Your task to perform on an android device: turn off picture-in-picture Image 0: 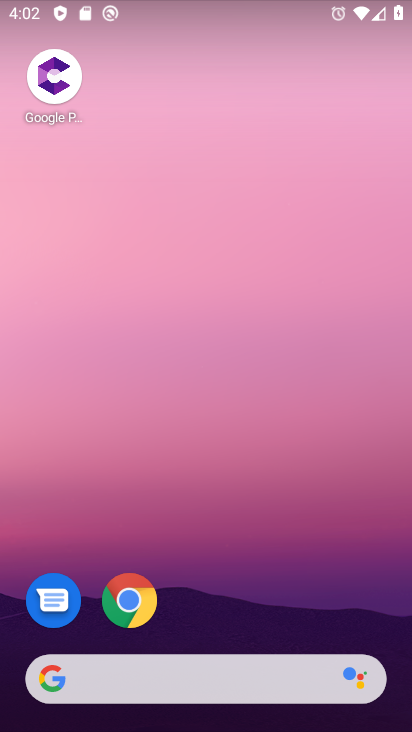
Step 0: click (140, 615)
Your task to perform on an android device: turn off picture-in-picture Image 1: 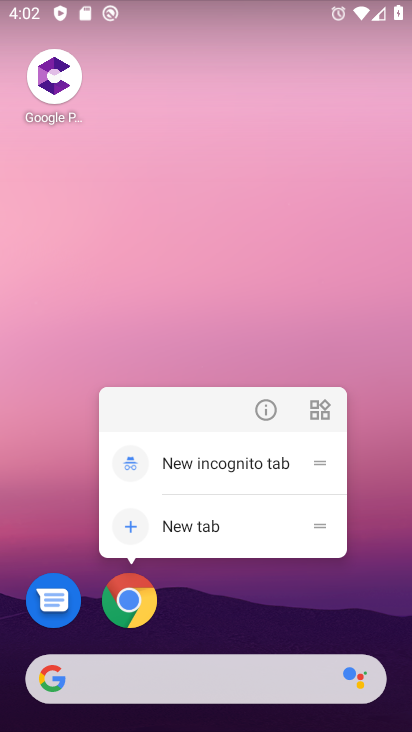
Step 1: click (267, 416)
Your task to perform on an android device: turn off picture-in-picture Image 2: 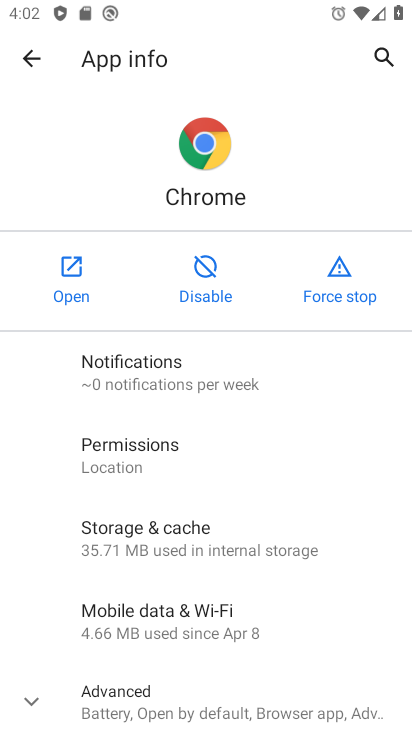
Step 2: drag from (213, 584) to (267, 309)
Your task to perform on an android device: turn off picture-in-picture Image 3: 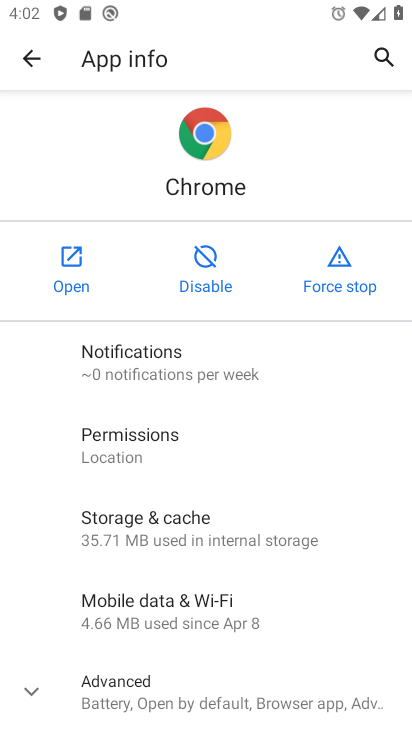
Step 3: drag from (189, 621) to (206, 501)
Your task to perform on an android device: turn off picture-in-picture Image 4: 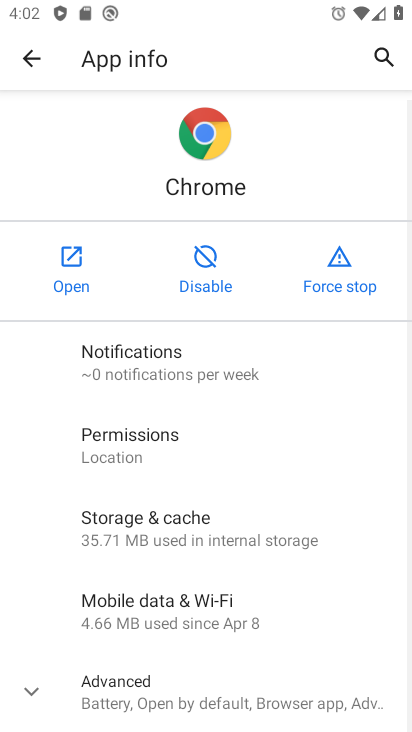
Step 4: click (129, 700)
Your task to perform on an android device: turn off picture-in-picture Image 5: 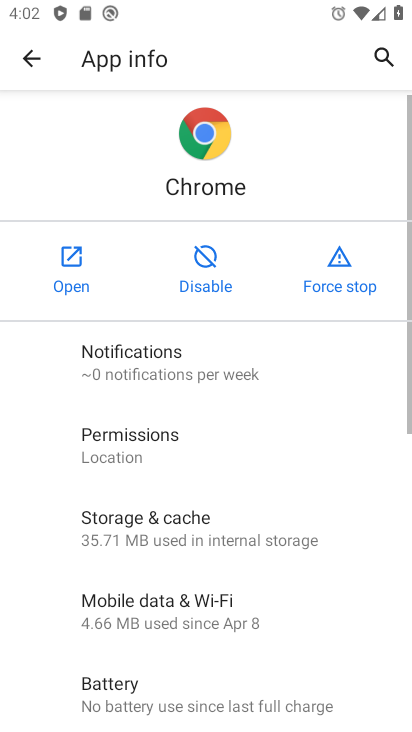
Step 5: drag from (164, 667) to (216, 334)
Your task to perform on an android device: turn off picture-in-picture Image 6: 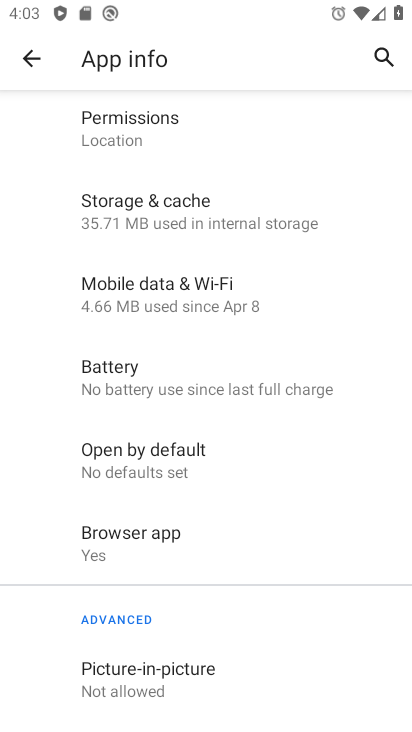
Step 6: click (130, 667)
Your task to perform on an android device: turn off picture-in-picture Image 7: 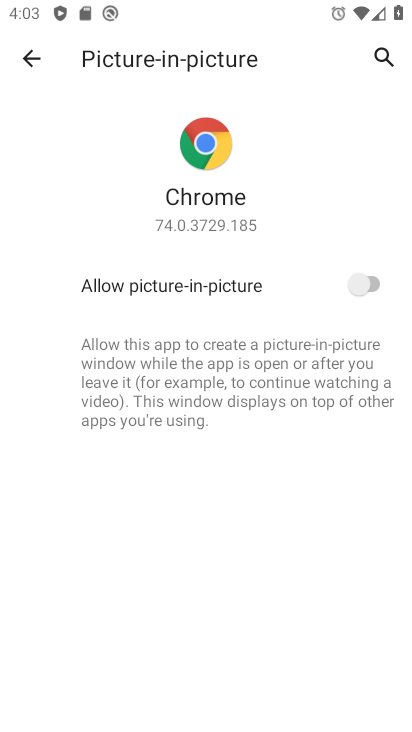
Step 7: task complete